Your task to perform on an android device: Do I have any events tomorrow? Image 0: 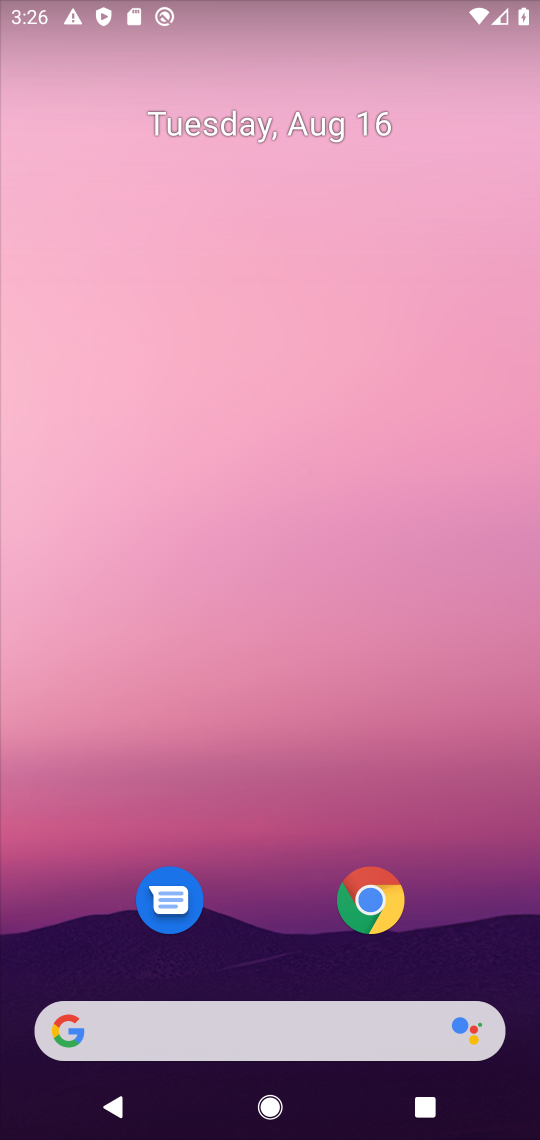
Step 0: drag from (262, 1004) to (194, 369)
Your task to perform on an android device: Do I have any events tomorrow? Image 1: 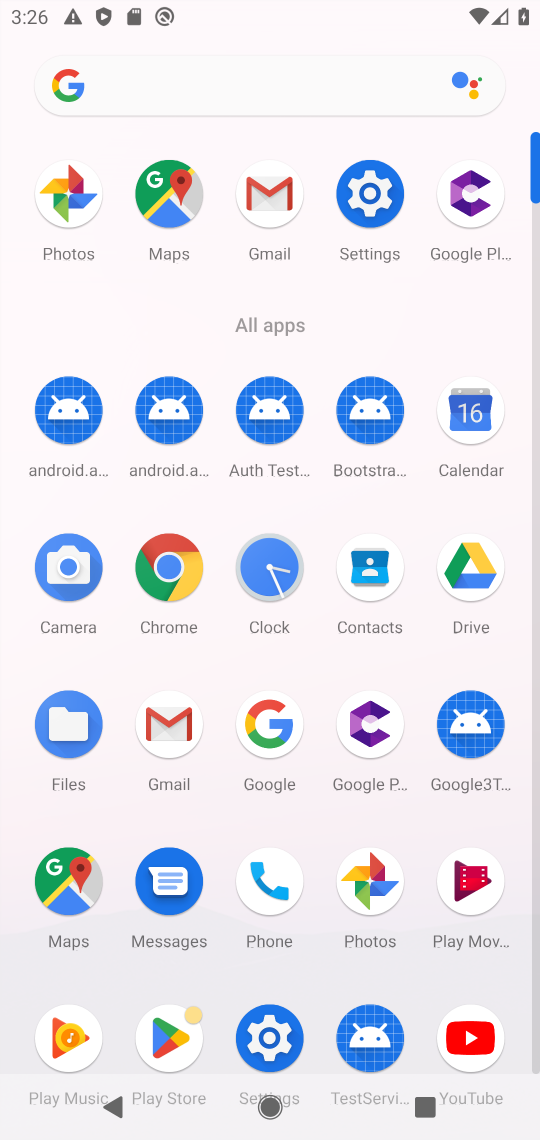
Step 1: click (473, 407)
Your task to perform on an android device: Do I have any events tomorrow? Image 2: 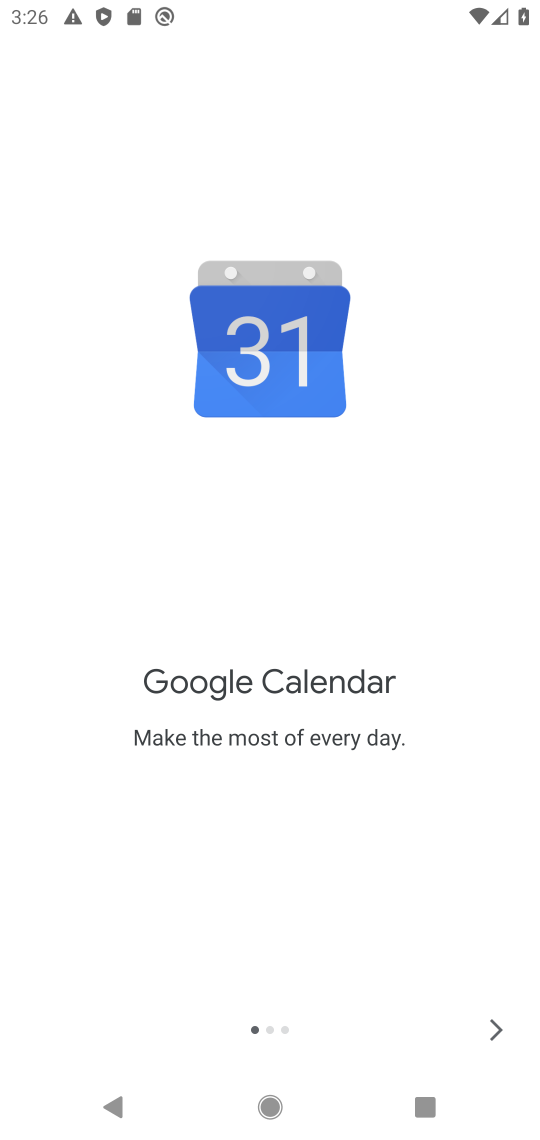
Step 2: click (494, 1039)
Your task to perform on an android device: Do I have any events tomorrow? Image 3: 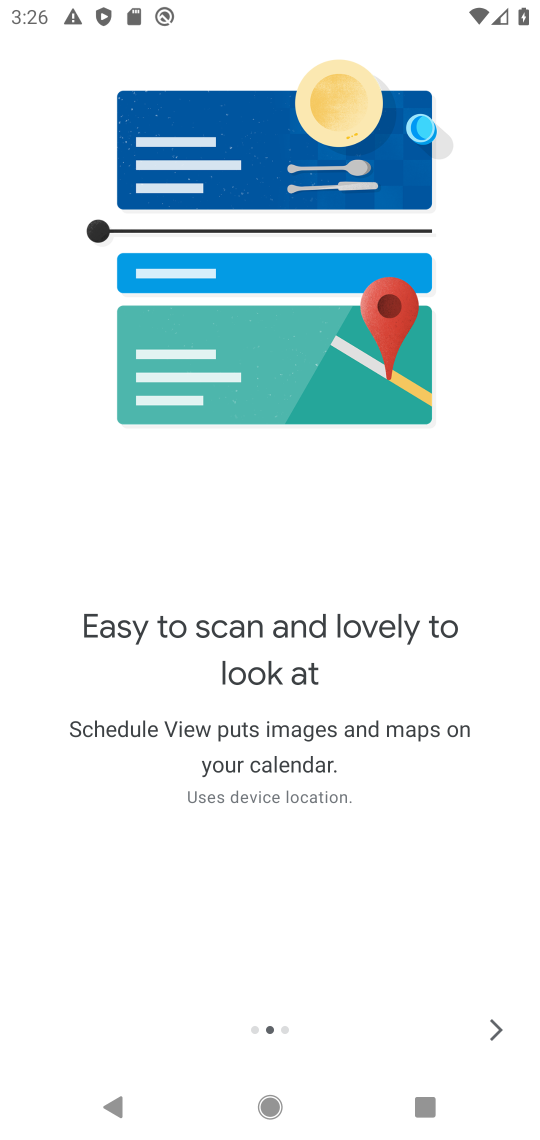
Step 3: click (500, 1028)
Your task to perform on an android device: Do I have any events tomorrow? Image 4: 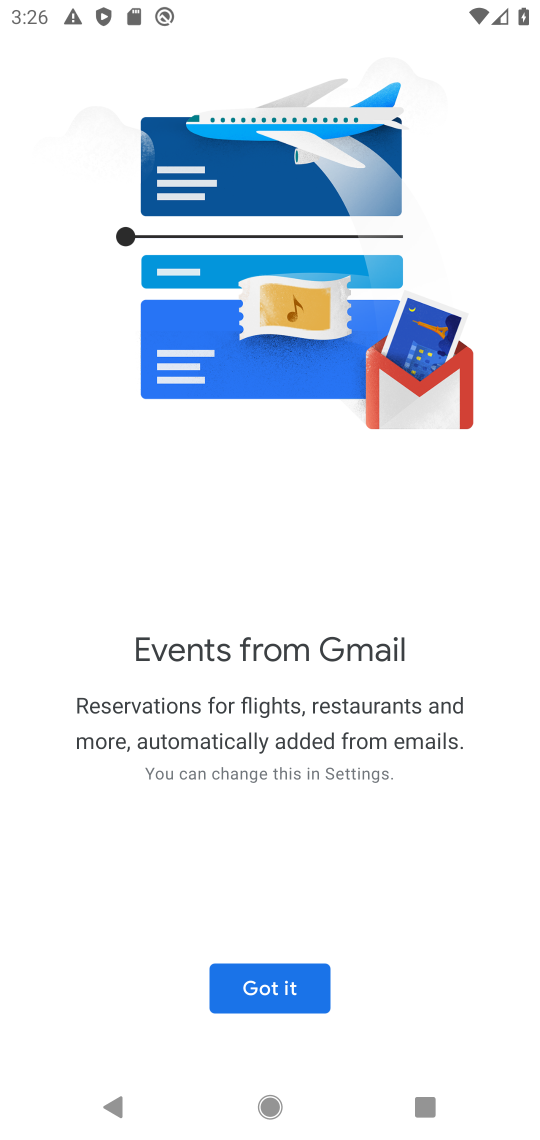
Step 4: click (485, 1034)
Your task to perform on an android device: Do I have any events tomorrow? Image 5: 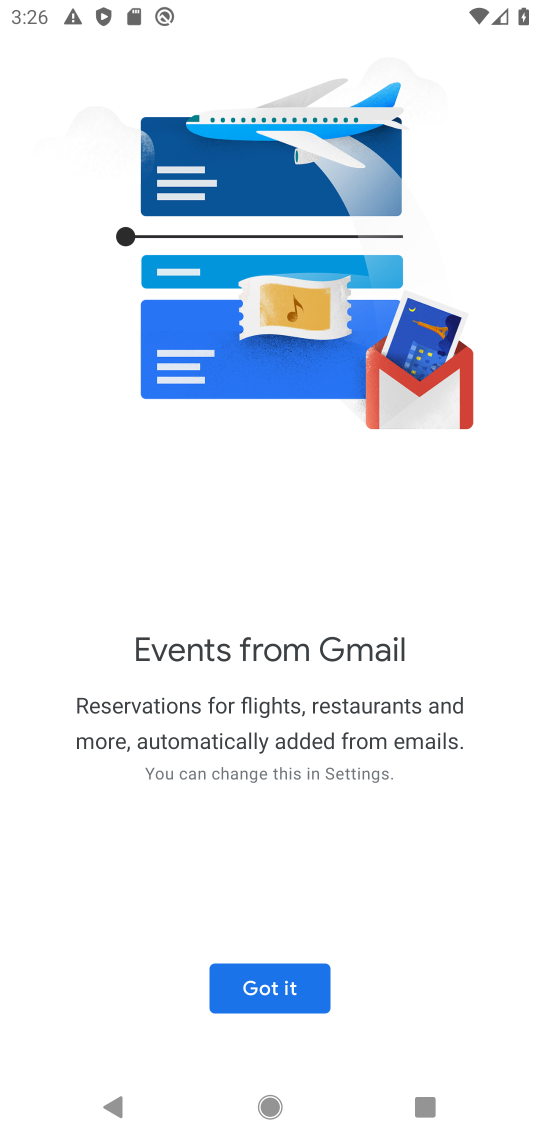
Step 5: click (327, 1001)
Your task to perform on an android device: Do I have any events tomorrow? Image 6: 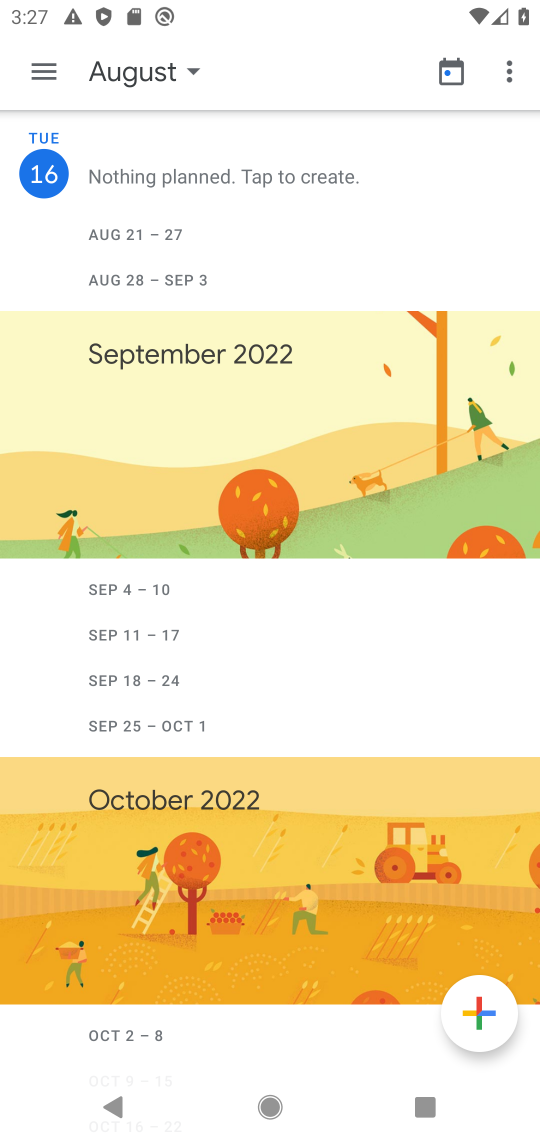
Step 6: task complete